Your task to perform on an android device: open chrome and create a bookmark for the current page Image 0: 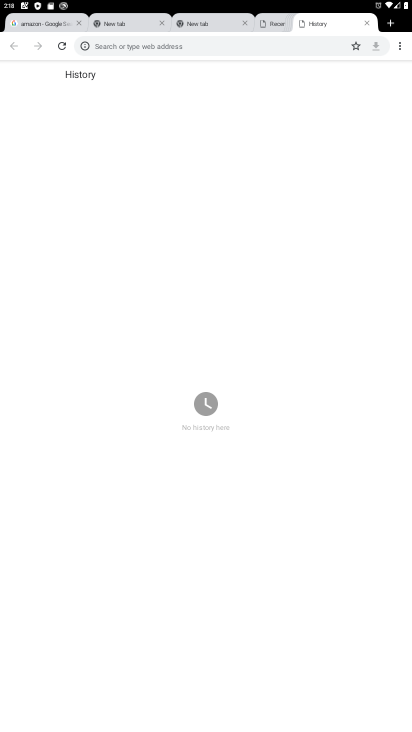
Step 0: press home button
Your task to perform on an android device: open chrome and create a bookmark for the current page Image 1: 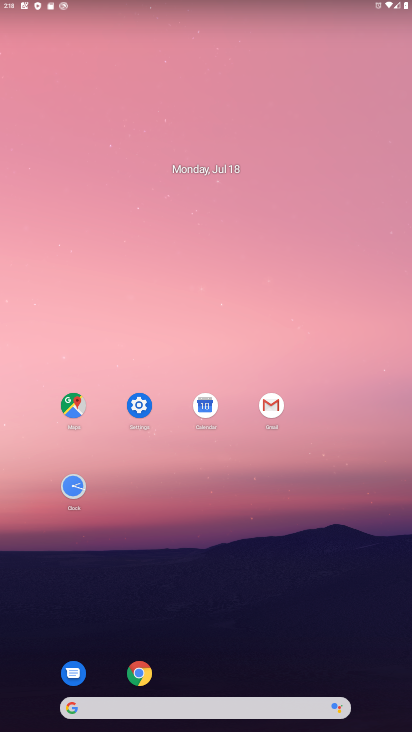
Step 1: click (150, 674)
Your task to perform on an android device: open chrome and create a bookmark for the current page Image 2: 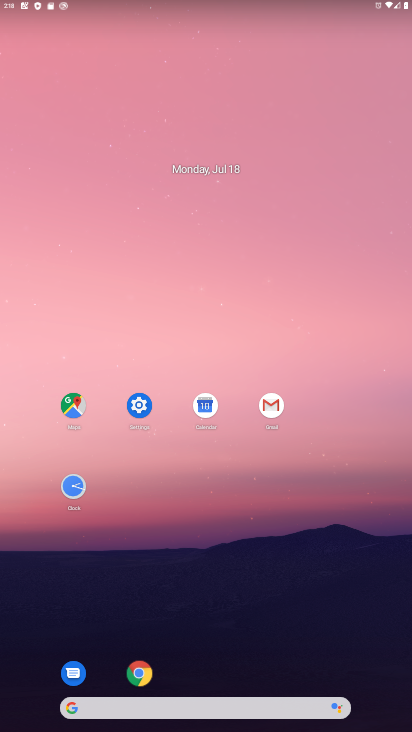
Step 2: click (134, 667)
Your task to perform on an android device: open chrome and create a bookmark for the current page Image 3: 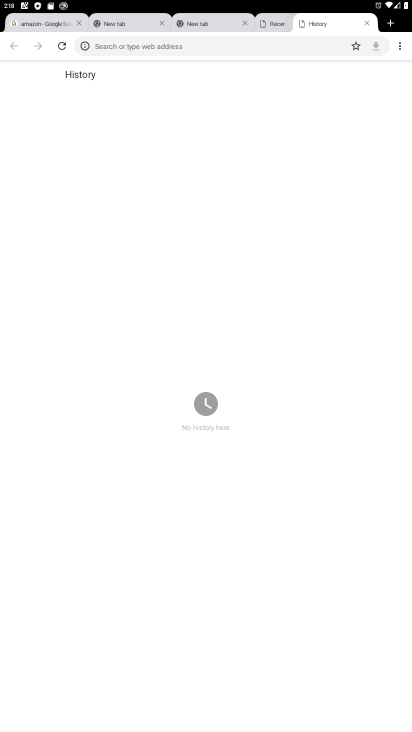
Step 3: click (403, 47)
Your task to perform on an android device: open chrome and create a bookmark for the current page Image 4: 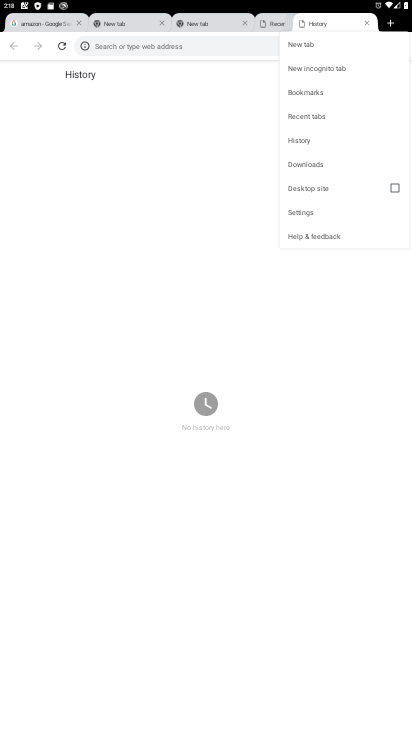
Step 4: click (245, 91)
Your task to perform on an android device: open chrome and create a bookmark for the current page Image 5: 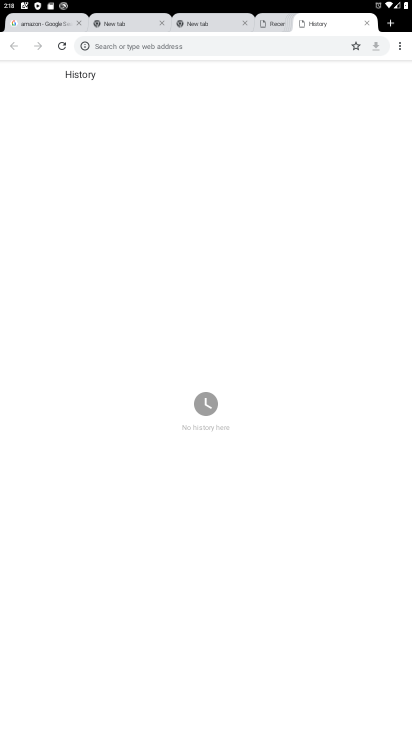
Step 5: click (357, 40)
Your task to perform on an android device: open chrome and create a bookmark for the current page Image 6: 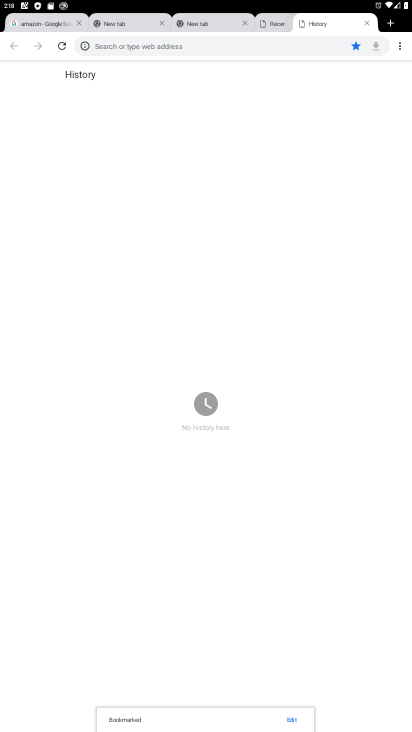
Step 6: task complete